Your task to perform on an android device: show emergency info Image 0: 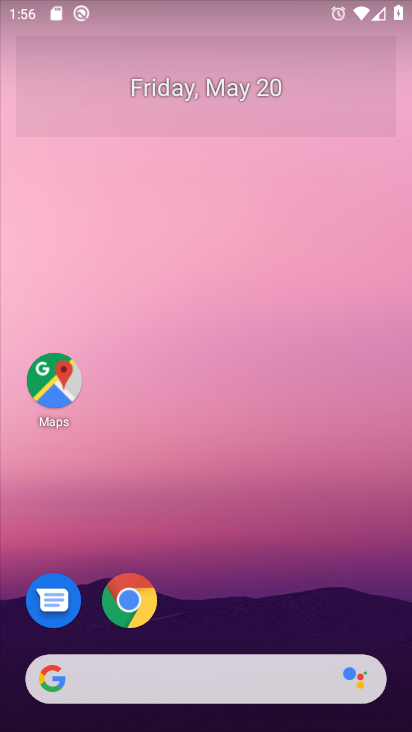
Step 0: drag from (217, 636) to (308, 5)
Your task to perform on an android device: show emergency info Image 1: 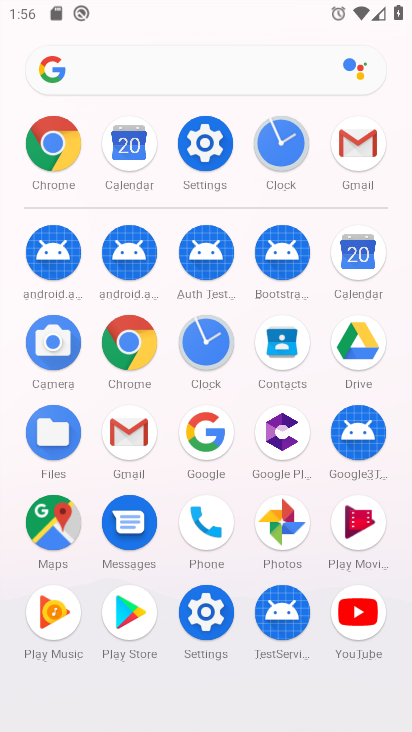
Step 1: click (206, 135)
Your task to perform on an android device: show emergency info Image 2: 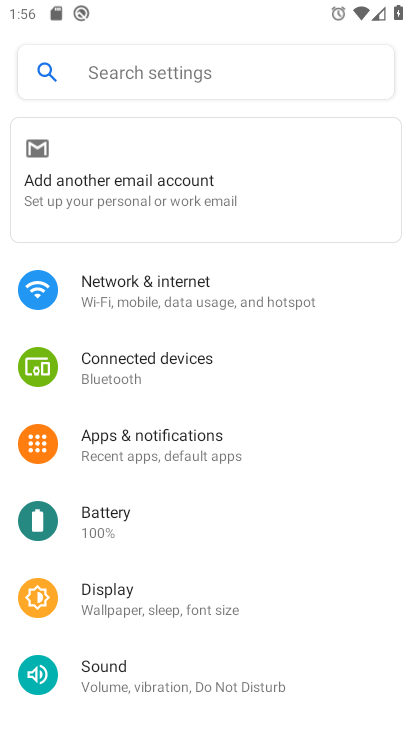
Step 2: drag from (172, 654) to (249, 303)
Your task to perform on an android device: show emergency info Image 3: 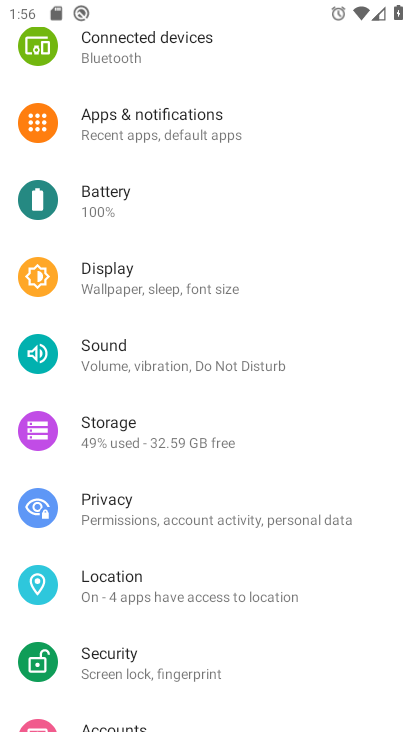
Step 3: drag from (186, 580) to (257, 239)
Your task to perform on an android device: show emergency info Image 4: 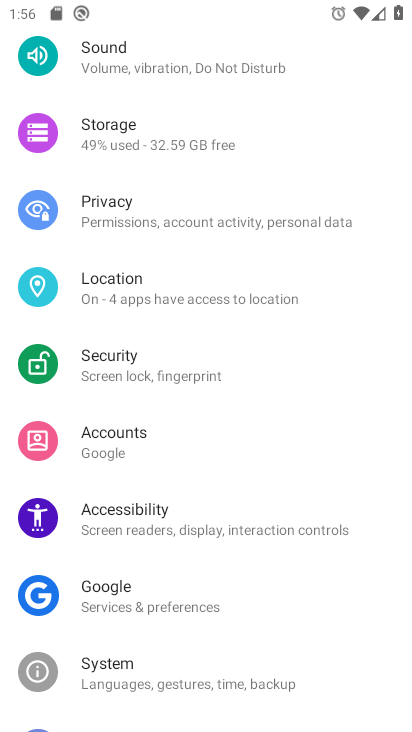
Step 4: drag from (190, 654) to (218, 391)
Your task to perform on an android device: show emergency info Image 5: 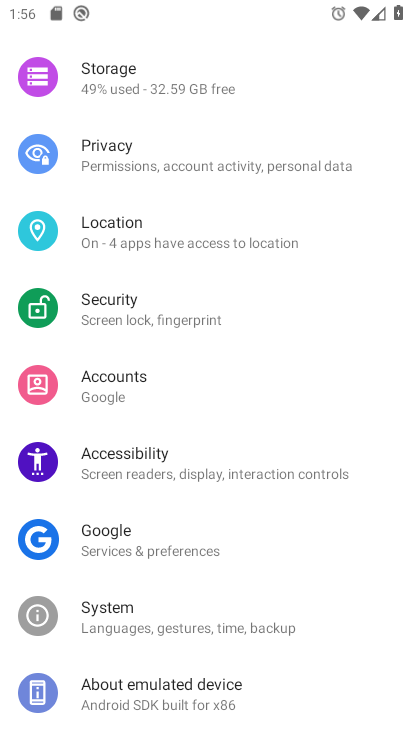
Step 5: click (173, 702)
Your task to perform on an android device: show emergency info Image 6: 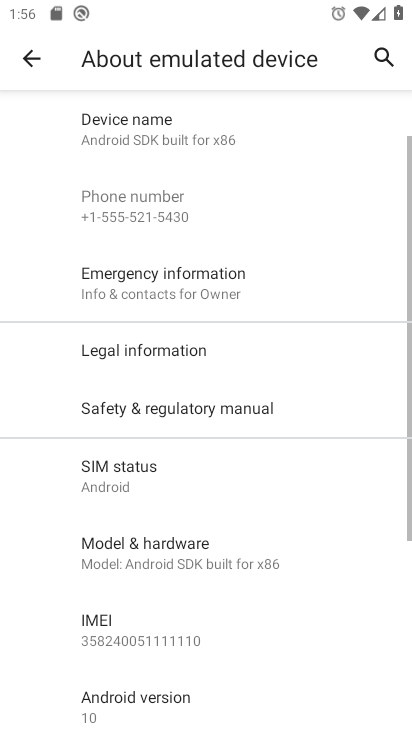
Step 6: click (169, 276)
Your task to perform on an android device: show emergency info Image 7: 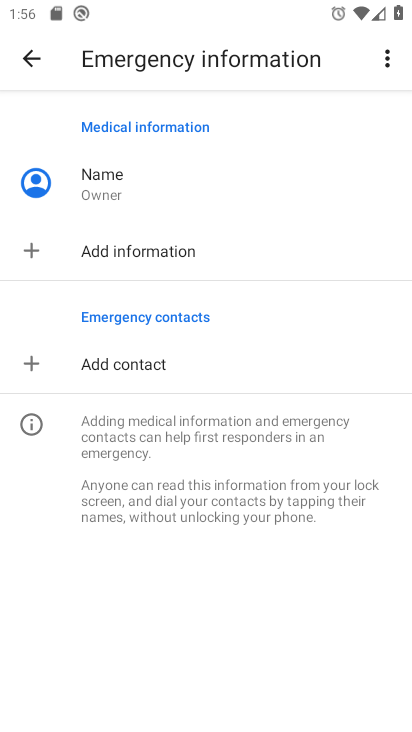
Step 7: task complete